Your task to perform on an android device: When is my next meeting? Image 0: 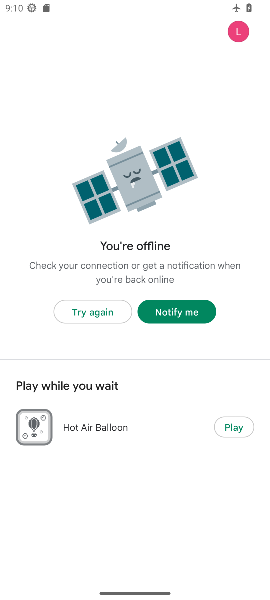
Step 0: task impossible